Your task to perform on an android device: Clear all items from cart on newegg.com. Add "beats solo 3" to the cart on newegg.com Image 0: 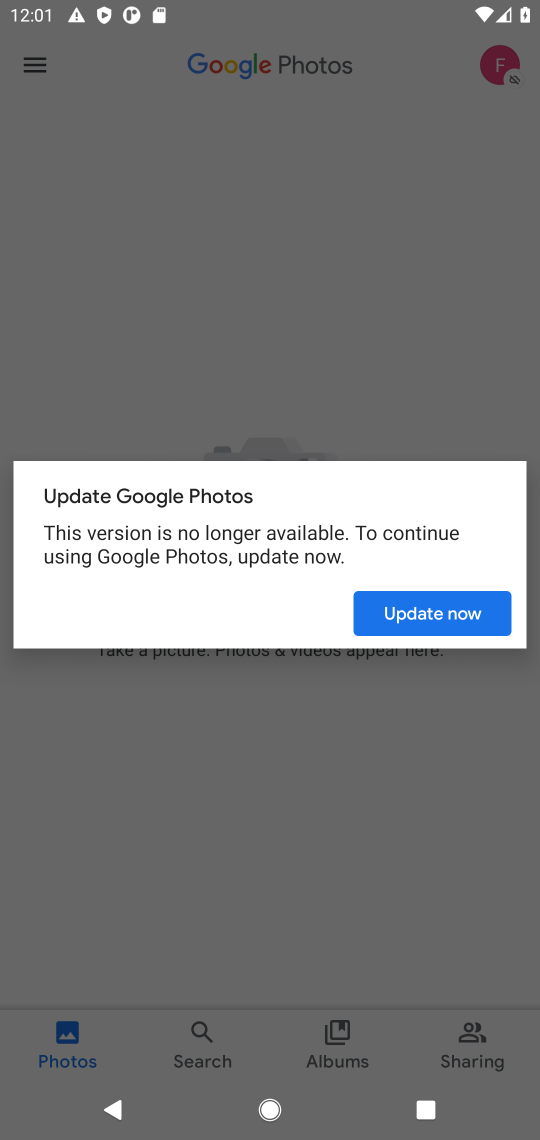
Step 0: press home button
Your task to perform on an android device: Clear all items from cart on newegg.com. Add "beats solo 3" to the cart on newegg.com Image 1: 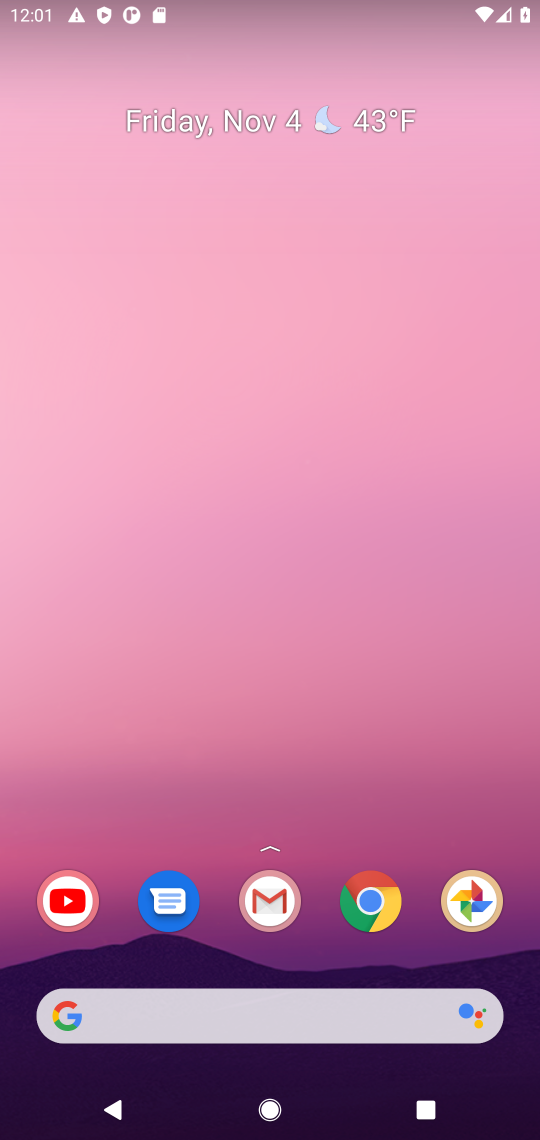
Step 1: click (374, 917)
Your task to perform on an android device: Clear all items from cart on newegg.com. Add "beats solo 3" to the cart on newegg.com Image 2: 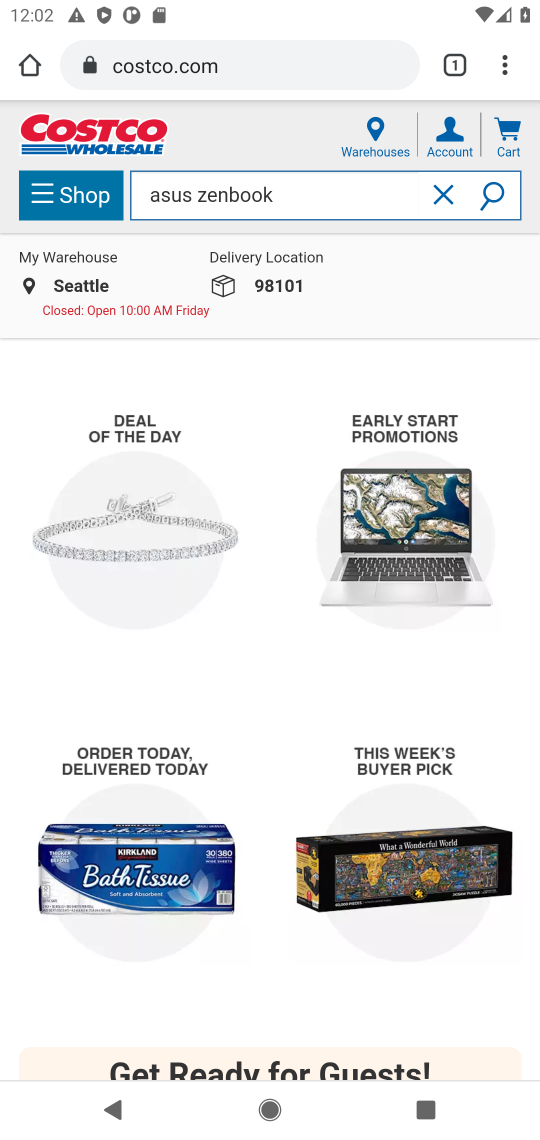
Step 2: click (28, 59)
Your task to perform on an android device: Clear all items from cart on newegg.com. Add "beats solo 3" to the cart on newegg.com Image 3: 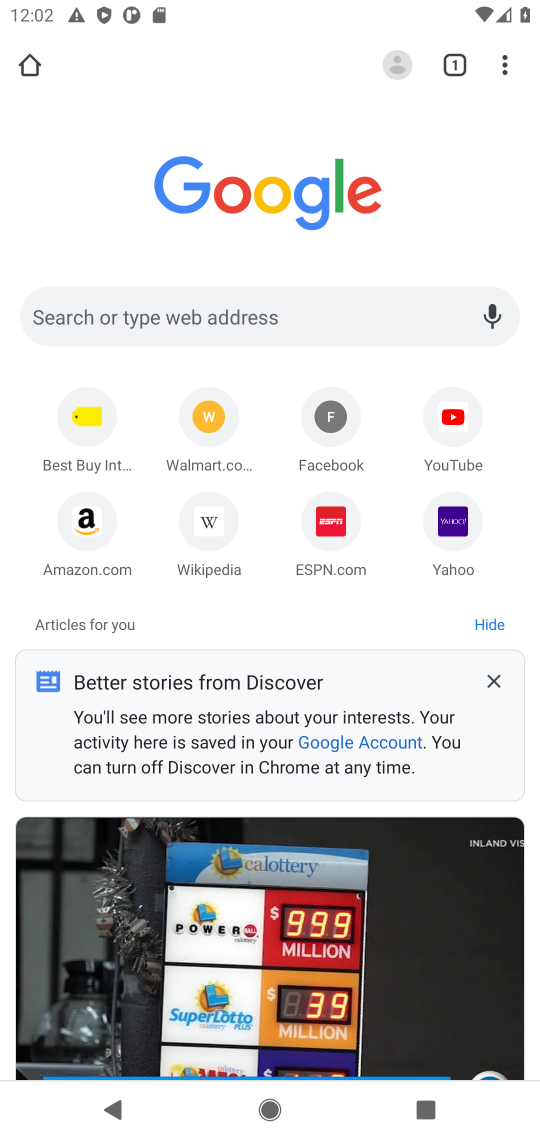
Step 3: click (357, 304)
Your task to perform on an android device: Clear all items from cart on newegg.com. Add "beats solo 3" to the cart on newegg.com Image 4: 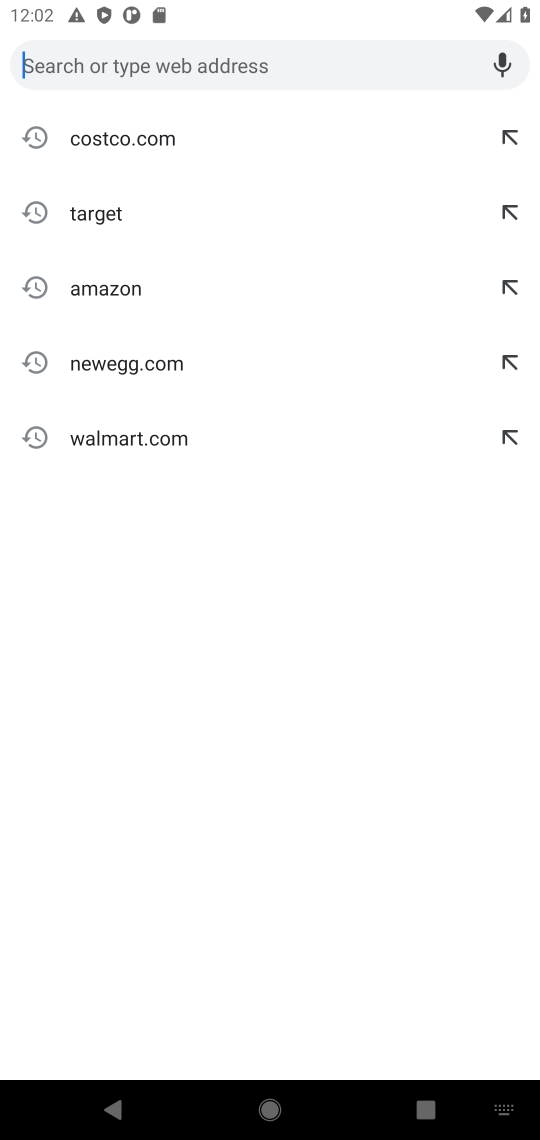
Step 4: type "newegg.com"
Your task to perform on an android device: Clear all items from cart on newegg.com. Add "beats solo 3" to the cart on newegg.com Image 5: 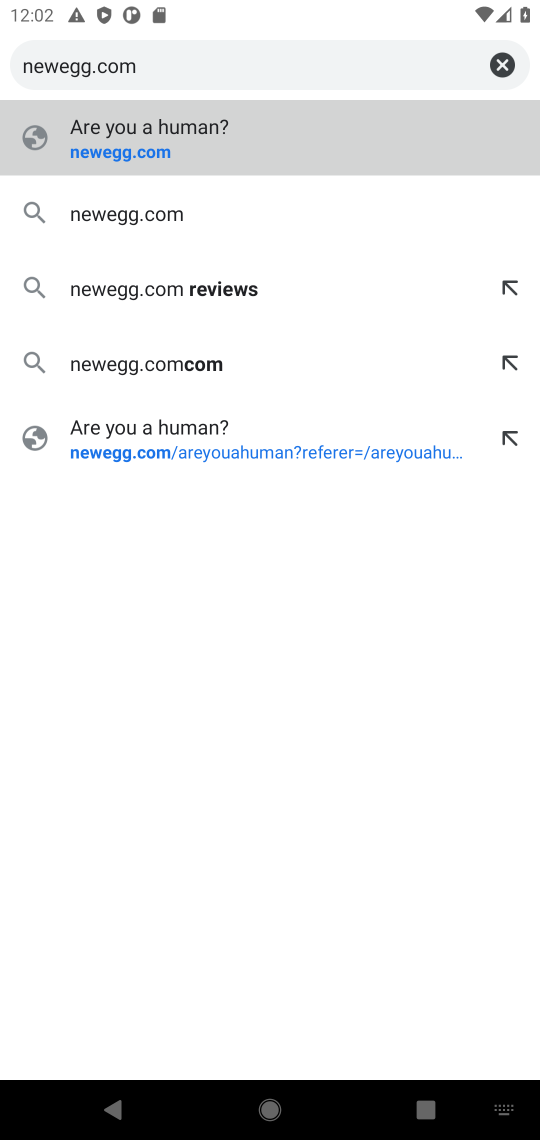
Step 5: click (164, 207)
Your task to perform on an android device: Clear all items from cart on newegg.com. Add "beats solo 3" to the cart on newegg.com Image 6: 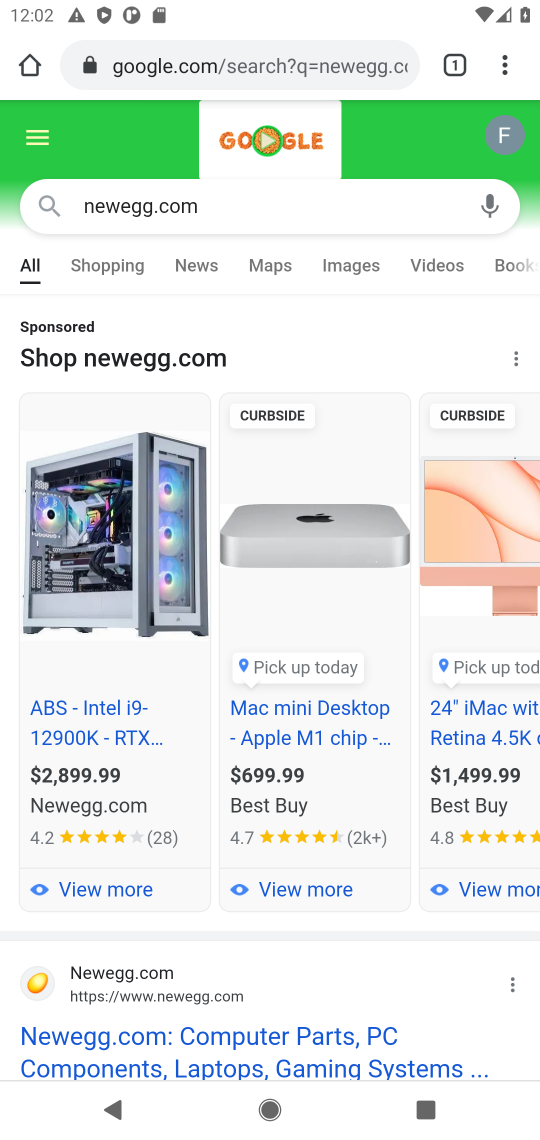
Step 6: click (199, 980)
Your task to perform on an android device: Clear all items from cart on newegg.com. Add "beats solo 3" to the cart on newegg.com Image 7: 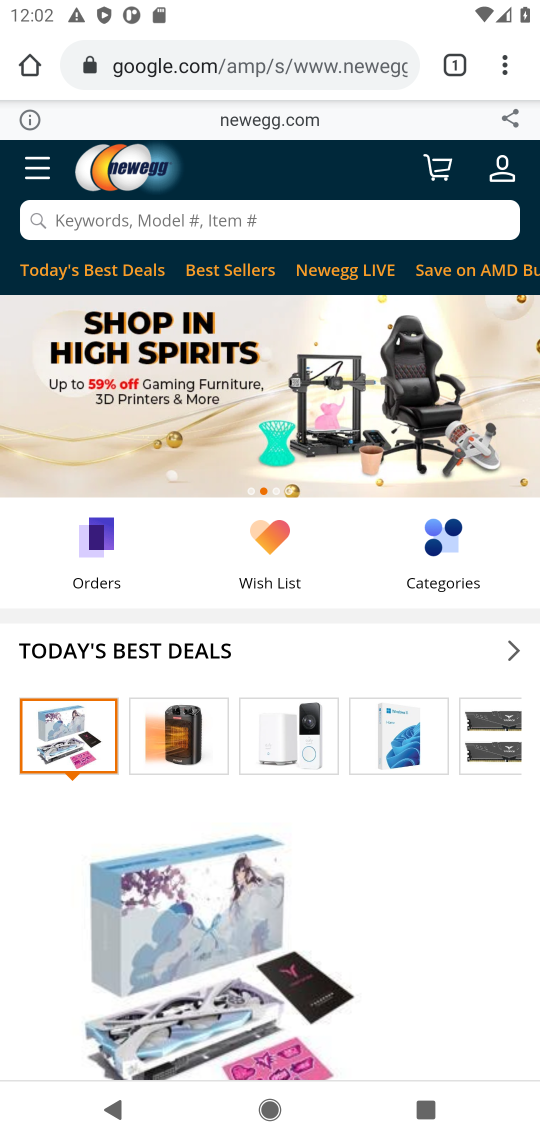
Step 7: click (446, 169)
Your task to perform on an android device: Clear all items from cart on newegg.com. Add "beats solo 3" to the cart on newegg.com Image 8: 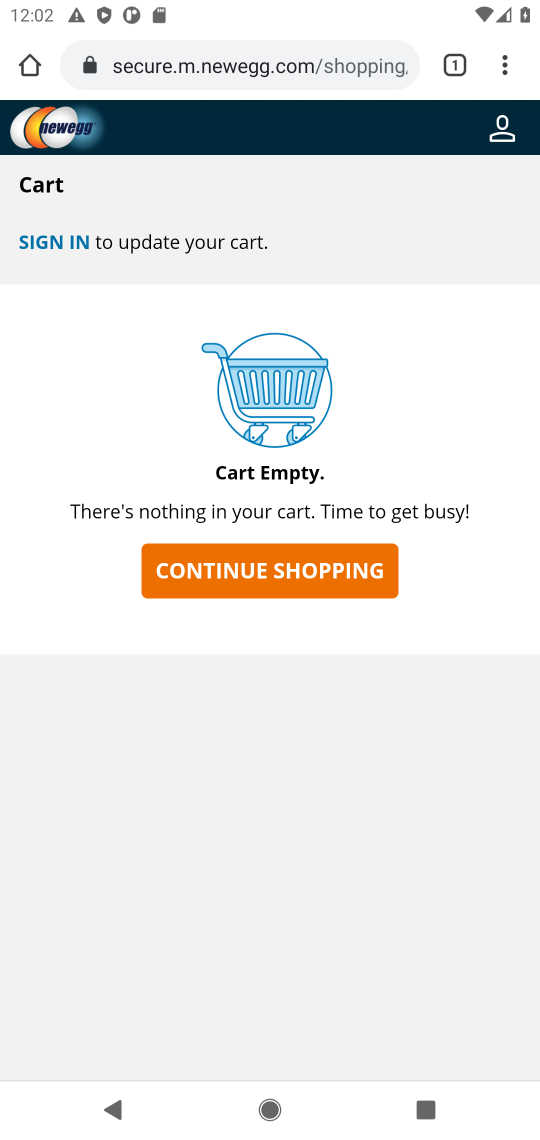
Step 8: press back button
Your task to perform on an android device: Clear all items from cart on newegg.com. Add "beats solo 3" to the cart on newegg.com Image 9: 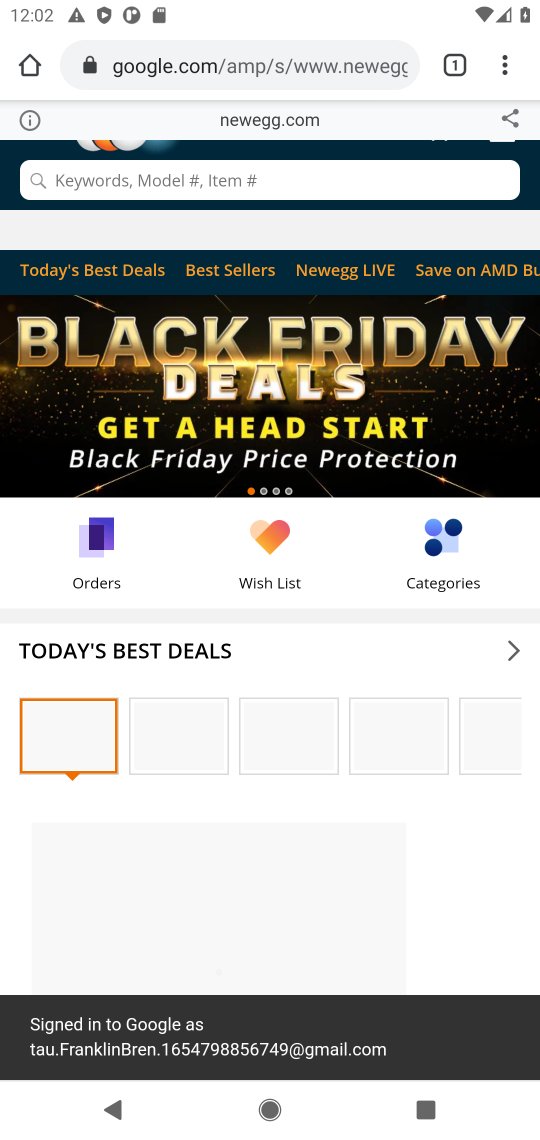
Step 9: click (222, 179)
Your task to perform on an android device: Clear all items from cart on newegg.com. Add "beats solo 3" to the cart on newegg.com Image 10: 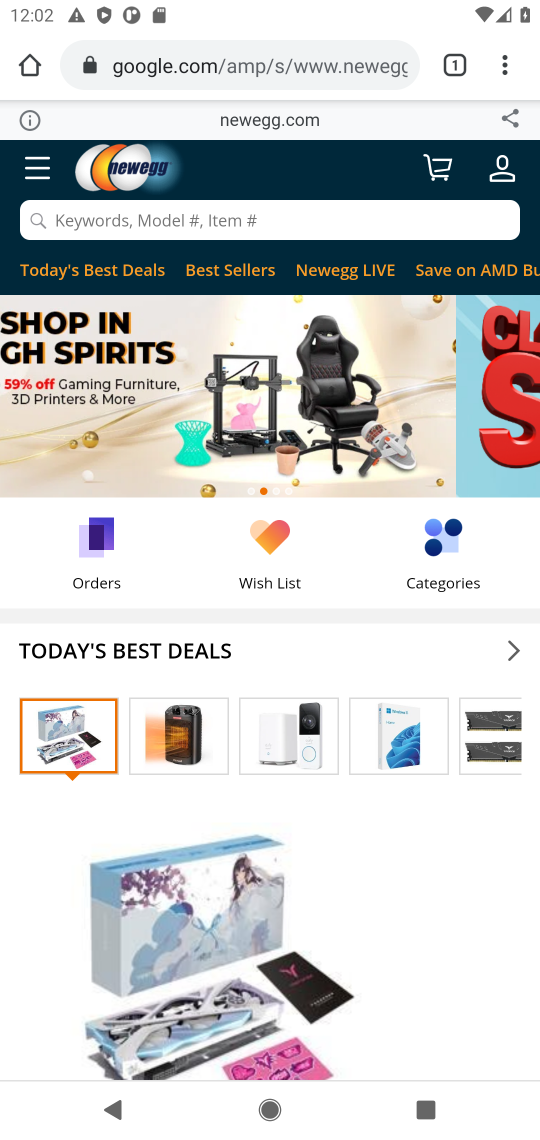
Step 10: click (248, 220)
Your task to perform on an android device: Clear all items from cart on newegg.com. Add "beats solo 3" to the cart on newegg.com Image 11: 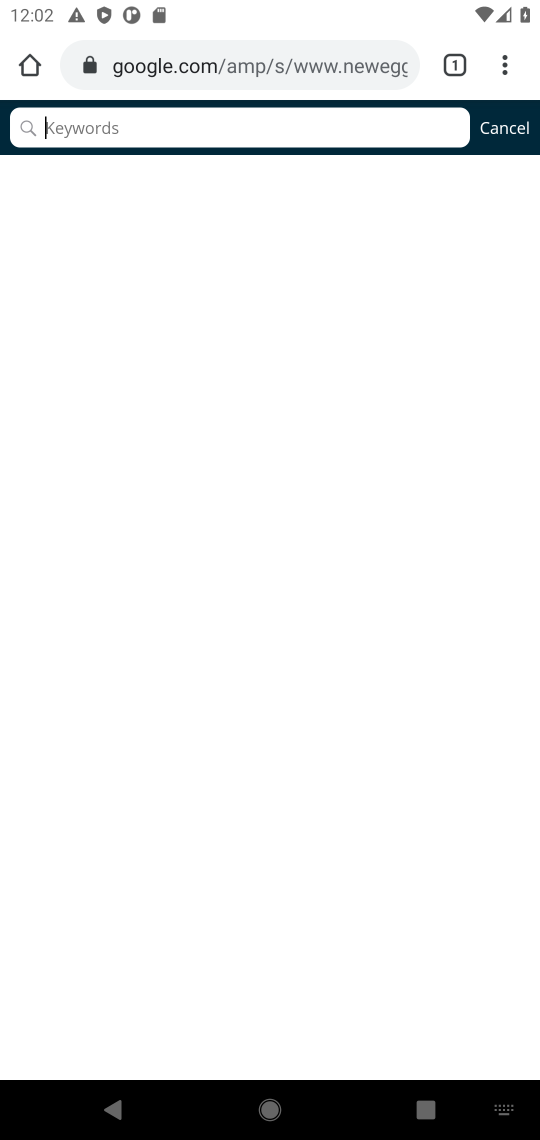
Step 11: type "beats solo 3"
Your task to perform on an android device: Clear all items from cart on newegg.com. Add "beats solo 3" to the cart on newegg.com Image 12: 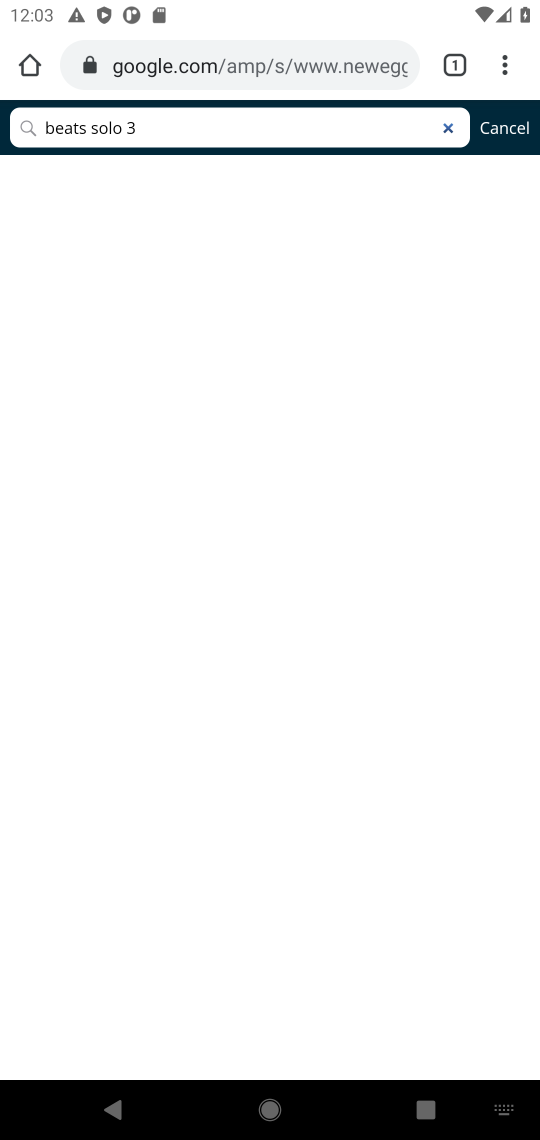
Step 12: click (491, 525)
Your task to perform on an android device: Clear all items from cart on newegg.com. Add "beats solo 3" to the cart on newegg.com Image 13: 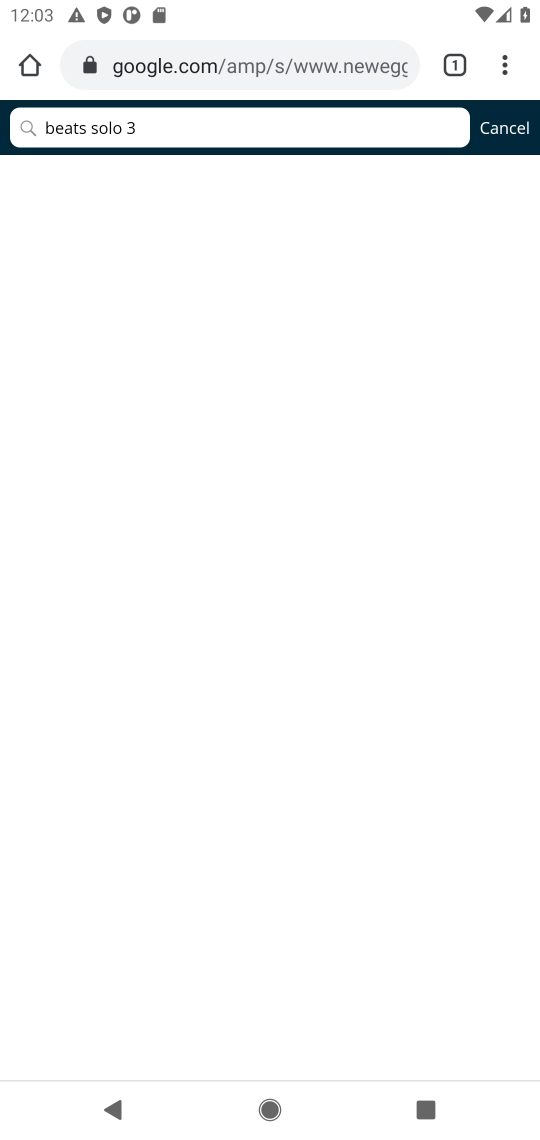
Step 13: click (394, 119)
Your task to perform on an android device: Clear all items from cart on newegg.com. Add "beats solo 3" to the cart on newegg.com Image 14: 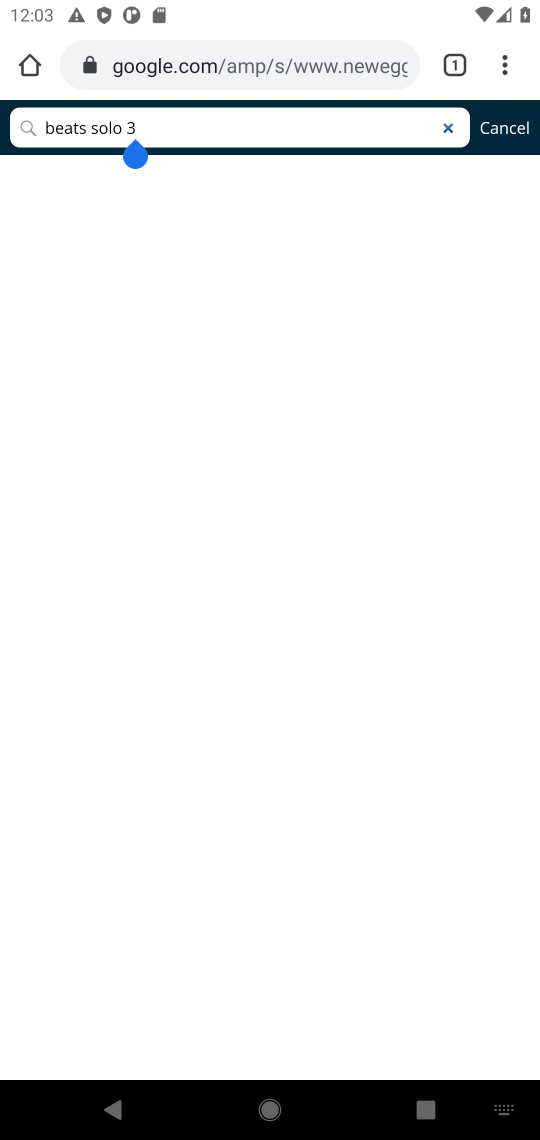
Step 14: click (461, 329)
Your task to perform on an android device: Clear all items from cart on newegg.com. Add "beats solo 3" to the cart on newegg.com Image 15: 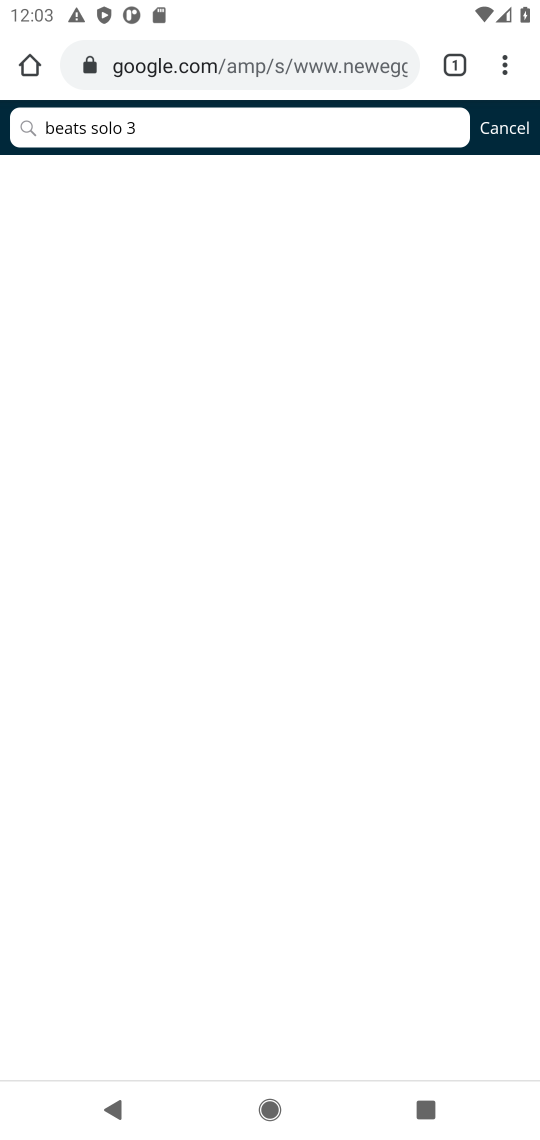
Step 15: task complete